Your task to perform on an android device: Open settings Image 0: 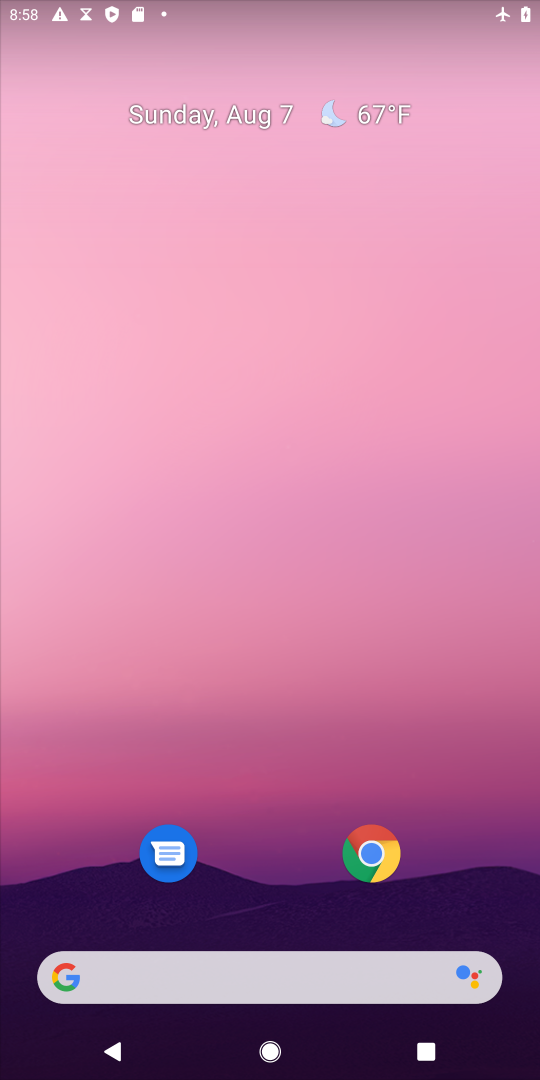
Step 0: drag from (288, 972) to (353, 149)
Your task to perform on an android device: Open settings Image 1: 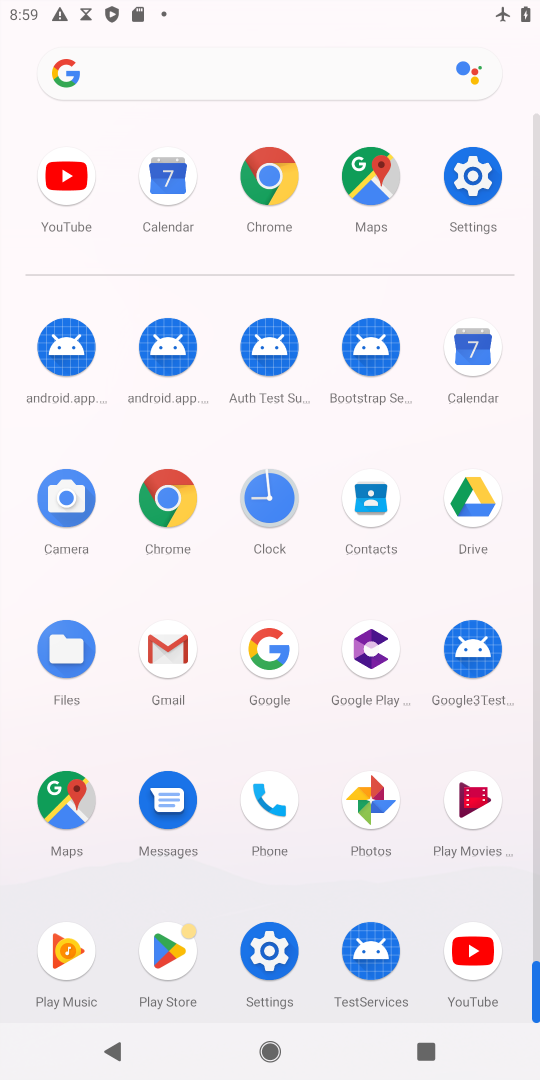
Step 1: click (496, 177)
Your task to perform on an android device: Open settings Image 2: 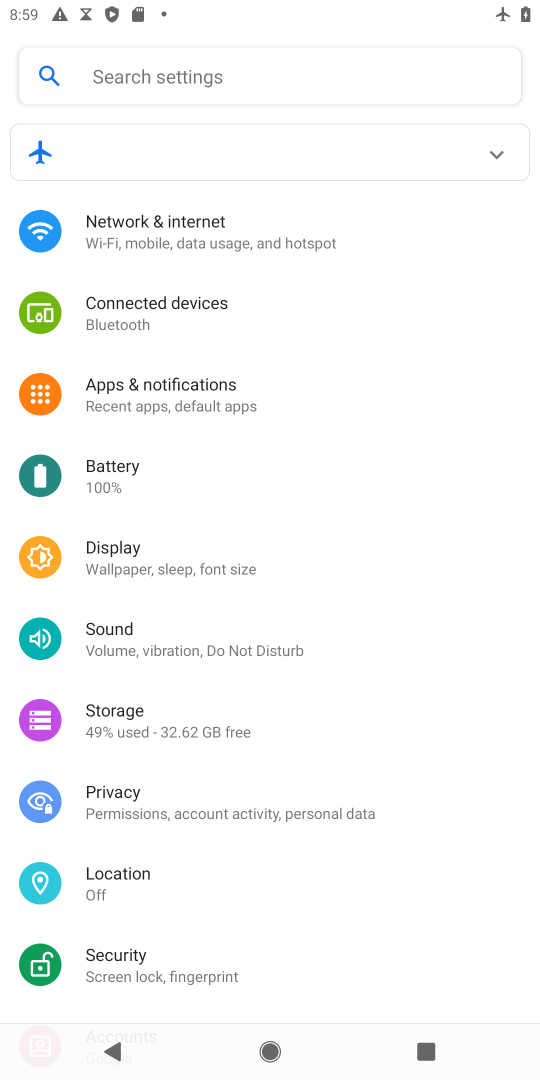
Step 2: task complete